Your task to perform on an android device: open a bookmark in the chrome app Image 0: 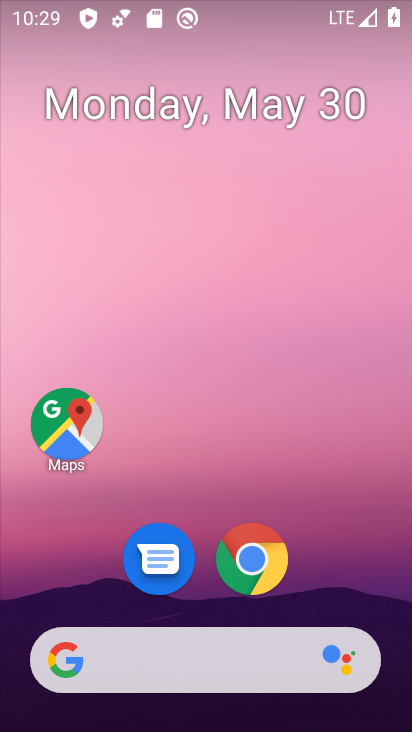
Step 0: drag from (350, 571) to (315, 247)
Your task to perform on an android device: open a bookmark in the chrome app Image 1: 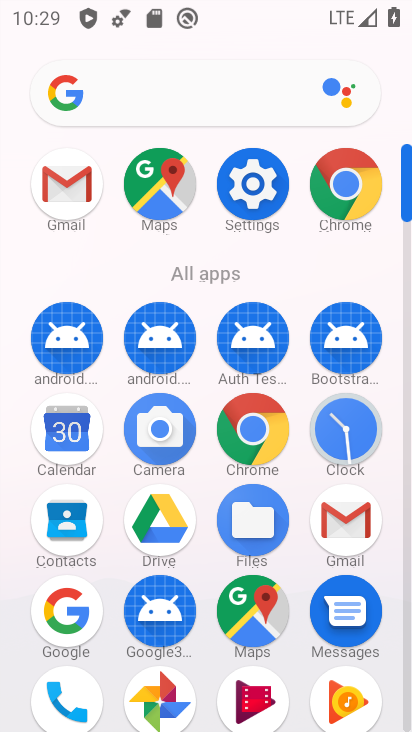
Step 1: click (355, 204)
Your task to perform on an android device: open a bookmark in the chrome app Image 2: 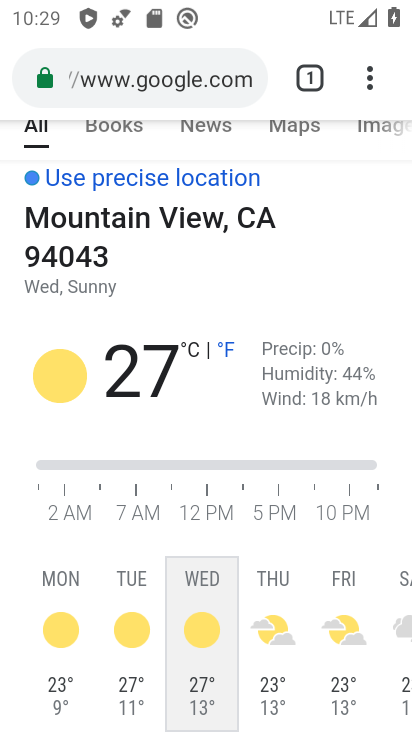
Step 2: click (373, 92)
Your task to perform on an android device: open a bookmark in the chrome app Image 3: 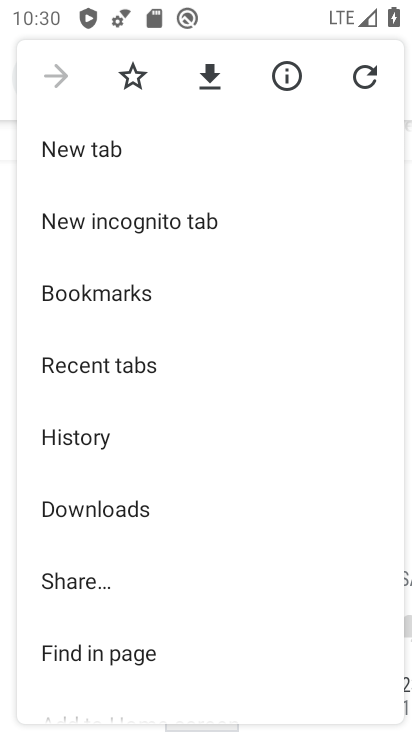
Step 3: click (284, 280)
Your task to perform on an android device: open a bookmark in the chrome app Image 4: 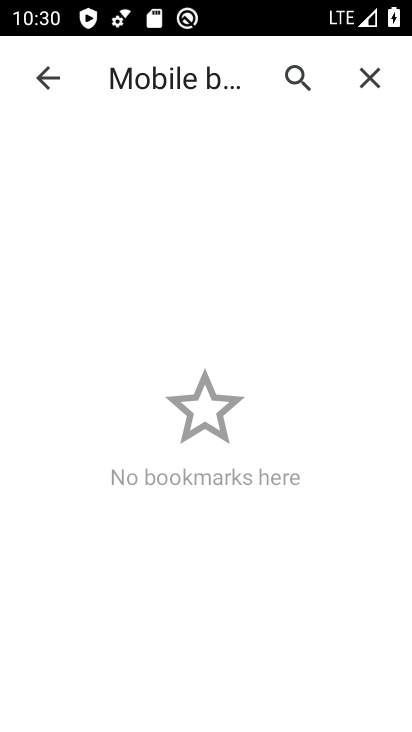
Step 4: task complete